Your task to perform on an android device: Open Google Chrome Image 0: 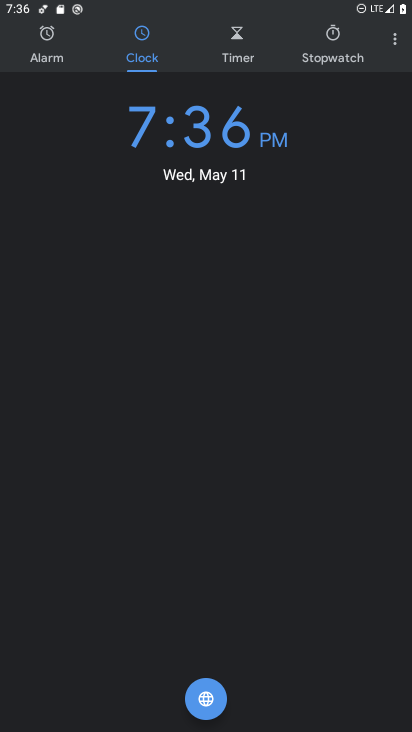
Step 0: press home button
Your task to perform on an android device: Open Google Chrome Image 1: 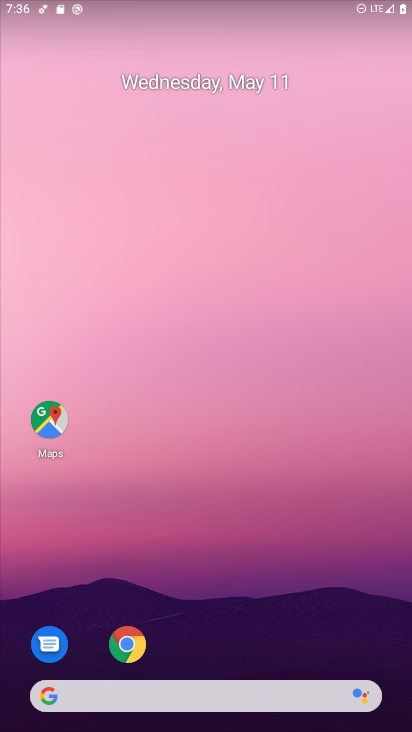
Step 1: click (133, 647)
Your task to perform on an android device: Open Google Chrome Image 2: 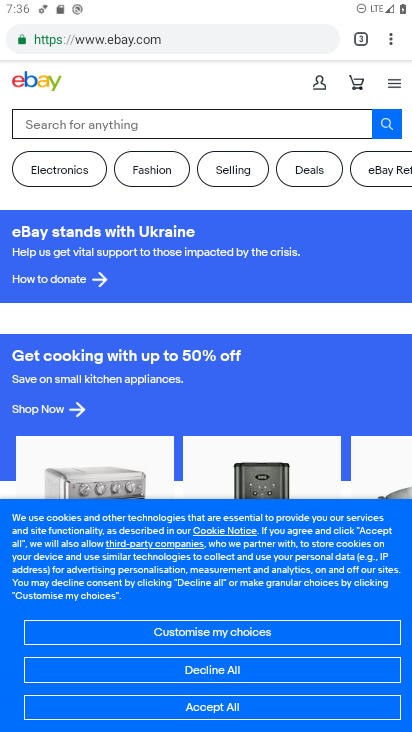
Step 2: task complete